Your task to perform on an android device: move a message to another label in the gmail app Image 0: 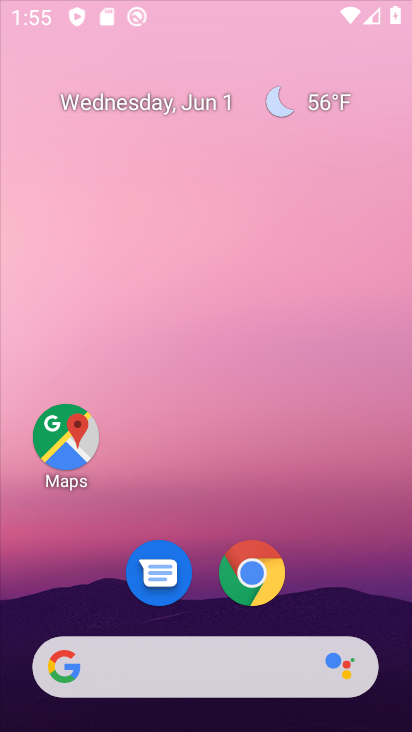
Step 0: drag from (230, 569) to (363, 5)
Your task to perform on an android device: move a message to another label in the gmail app Image 1: 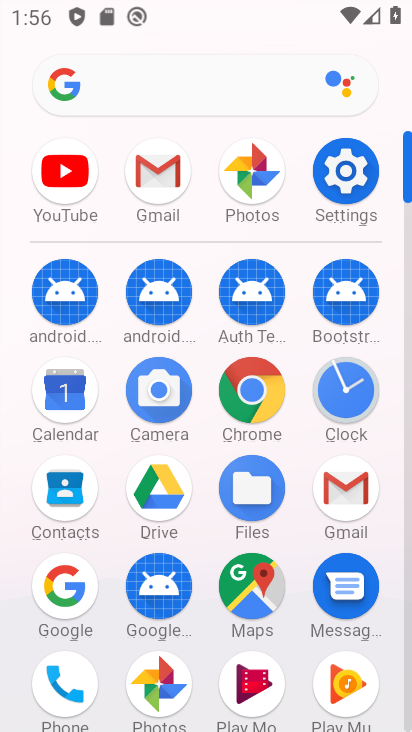
Step 1: click (344, 494)
Your task to perform on an android device: move a message to another label in the gmail app Image 2: 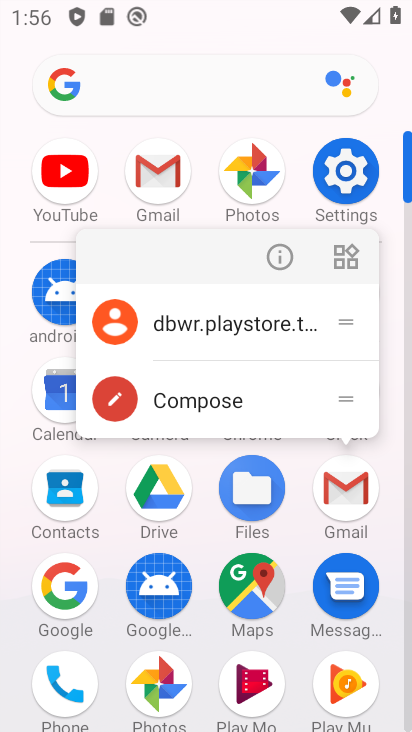
Step 2: click (280, 259)
Your task to perform on an android device: move a message to another label in the gmail app Image 3: 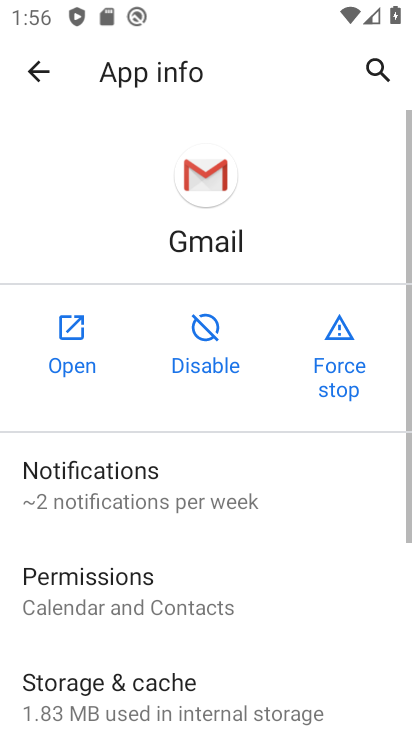
Step 3: click (66, 340)
Your task to perform on an android device: move a message to another label in the gmail app Image 4: 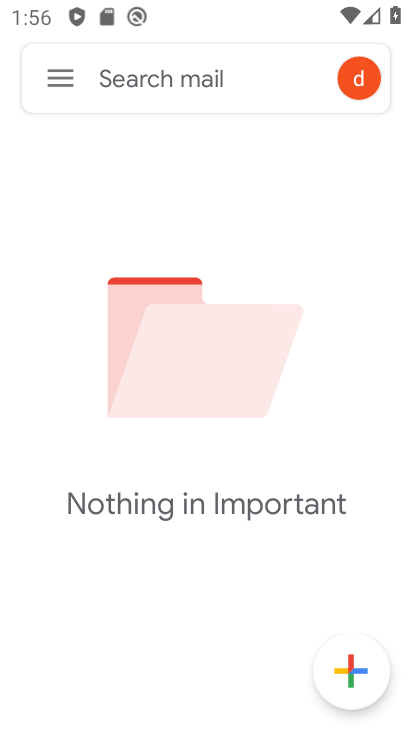
Step 4: click (54, 89)
Your task to perform on an android device: move a message to another label in the gmail app Image 5: 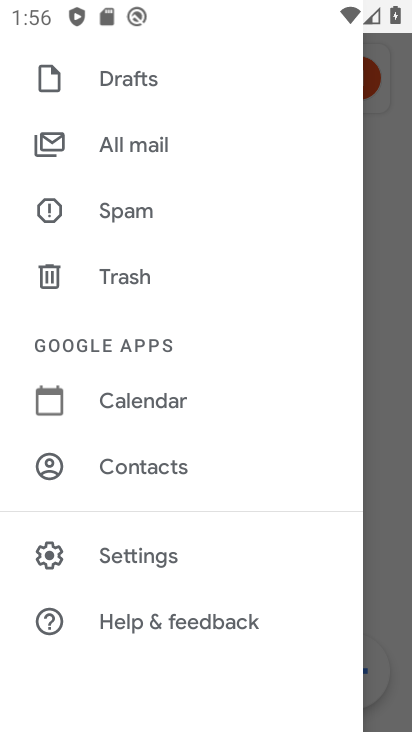
Step 5: click (153, 139)
Your task to perform on an android device: move a message to another label in the gmail app Image 6: 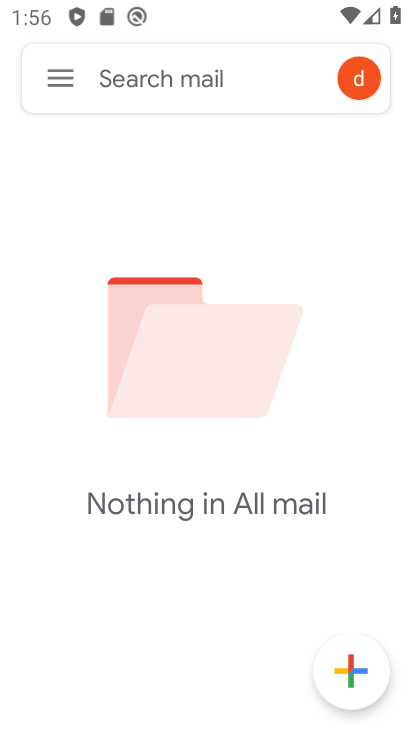
Step 6: task complete